Your task to perform on an android device: visit the assistant section in the google photos Image 0: 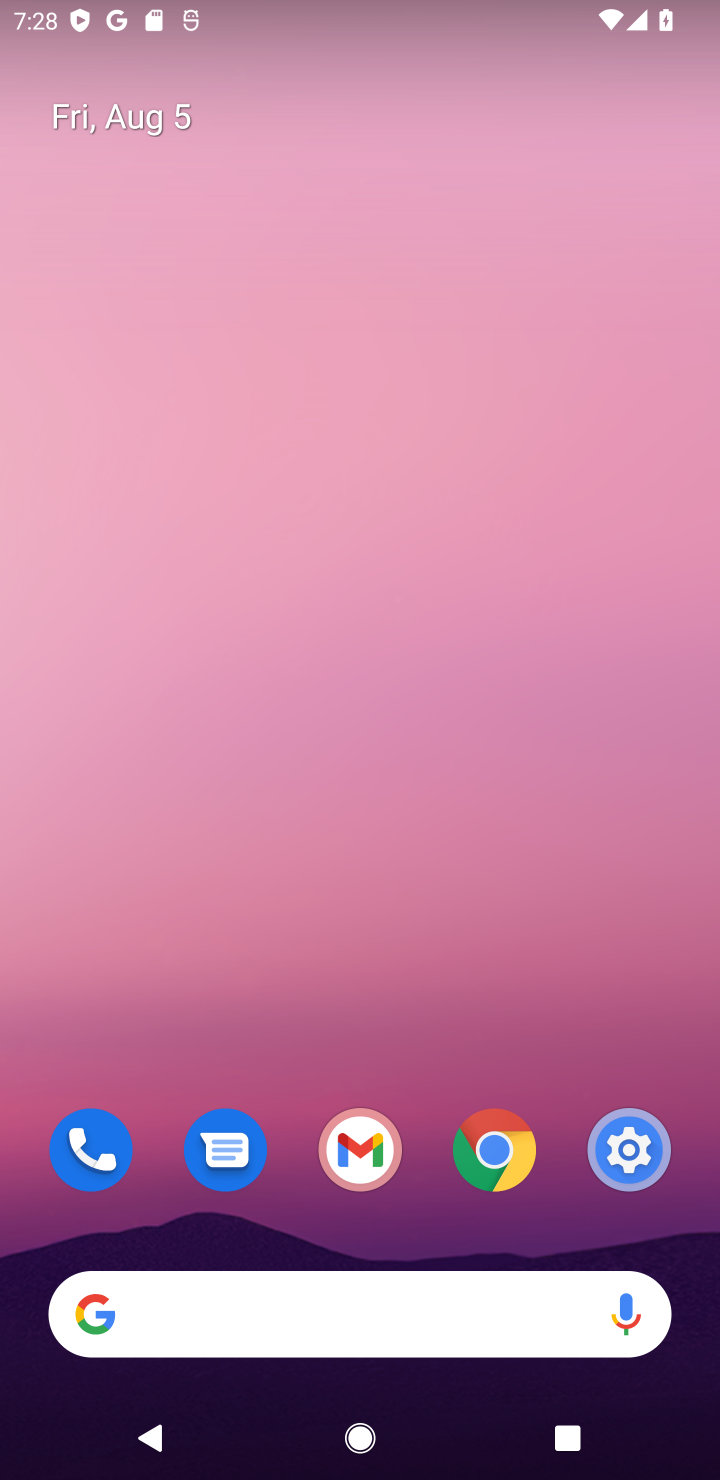
Step 0: press home button
Your task to perform on an android device: visit the assistant section in the google photos Image 1: 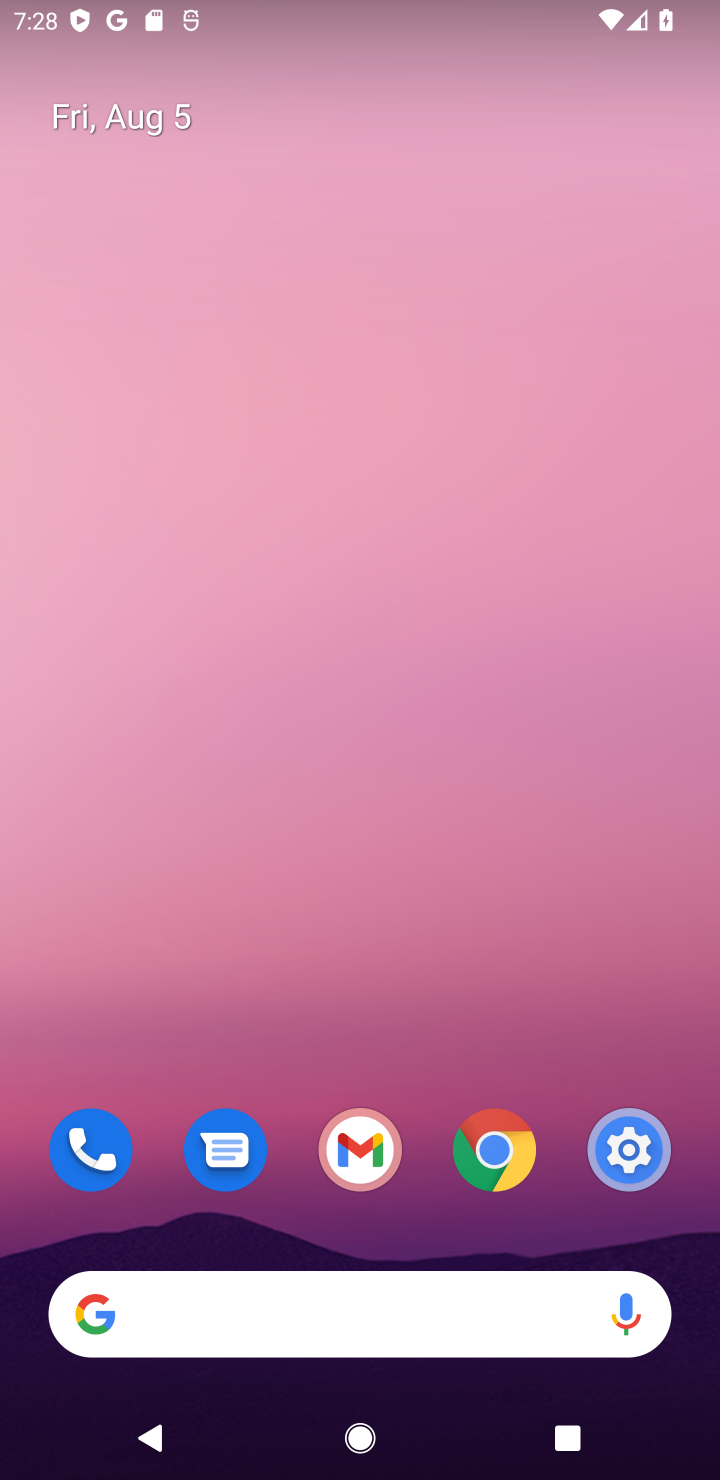
Step 1: drag from (419, 1088) to (457, 436)
Your task to perform on an android device: visit the assistant section in the google photos Image 2: 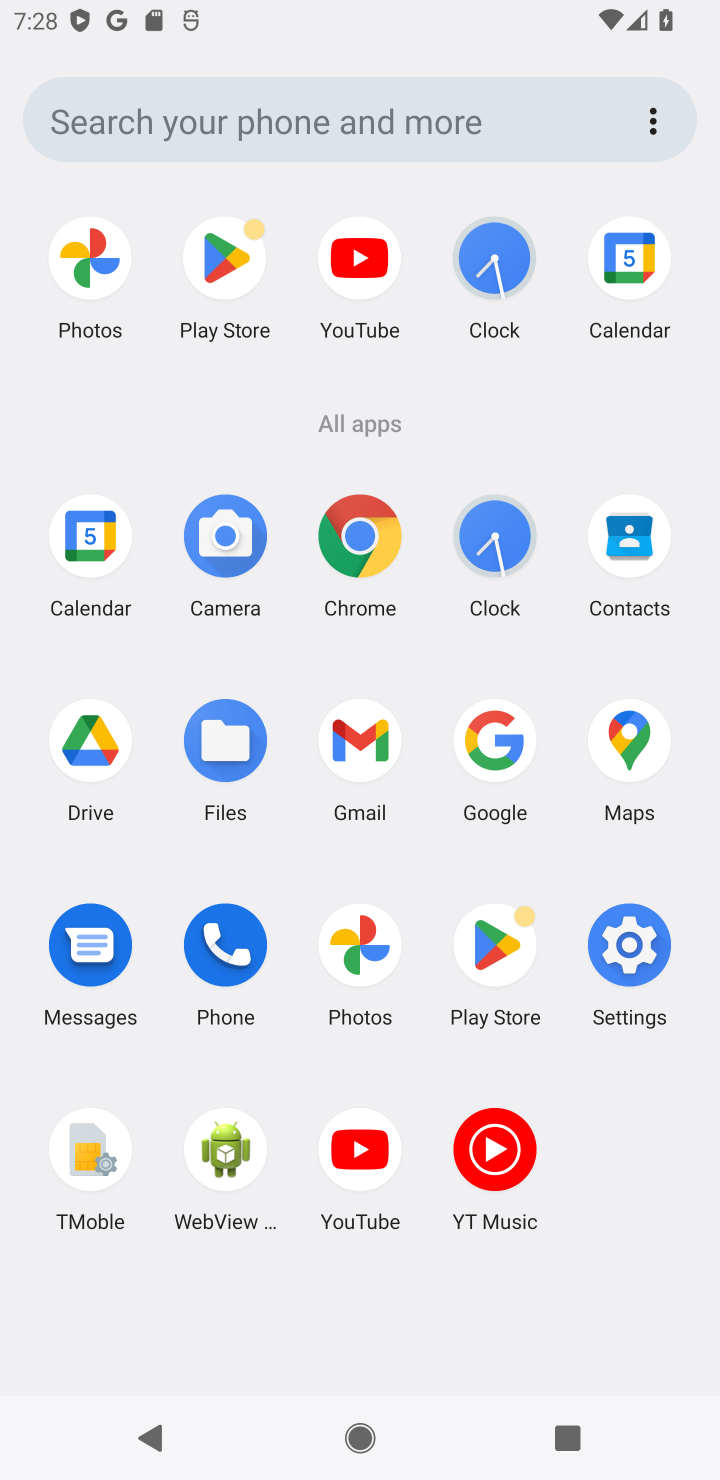
Step 2: click (360, 937)
Your task to perform on an android device: visit the assistant section in the google photos Image 3: 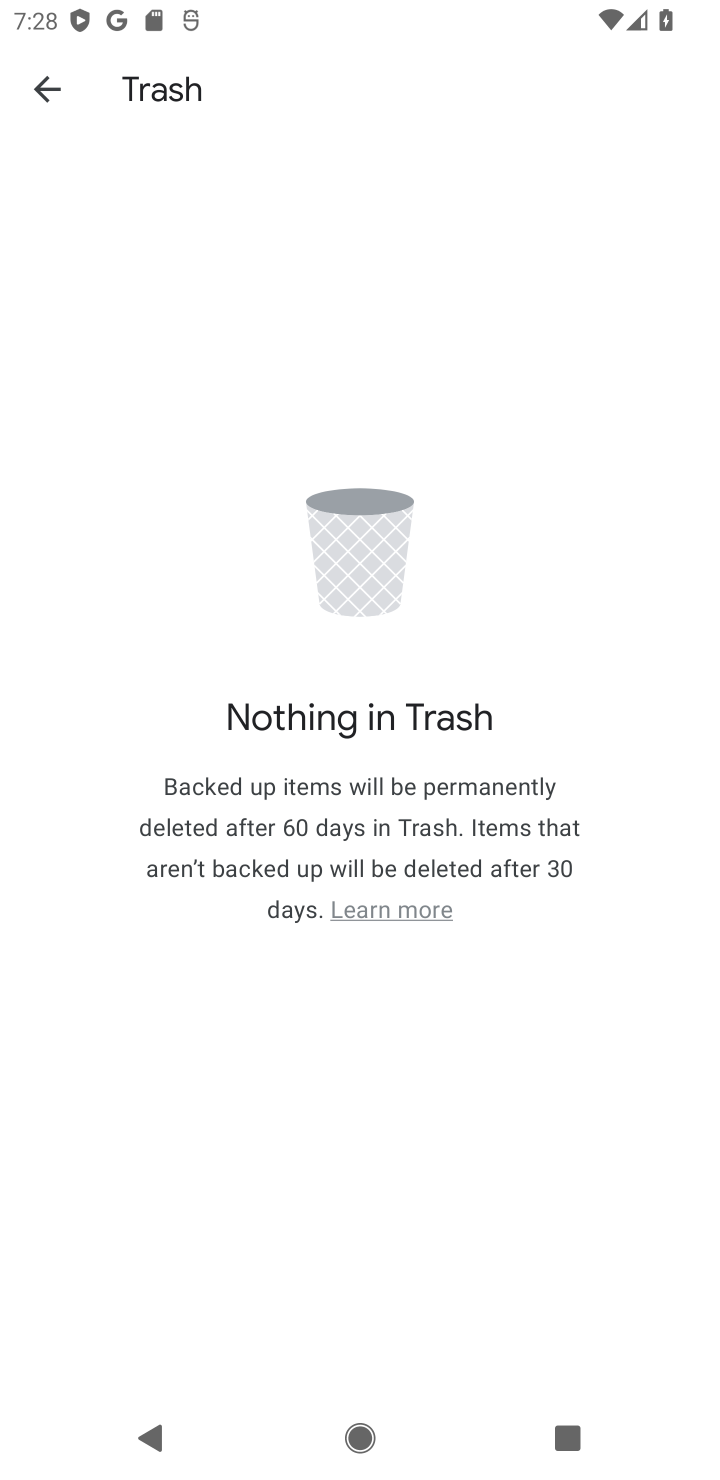
Step 3: task complete